Your task to perform on an android device: What is the news today? Image 0: 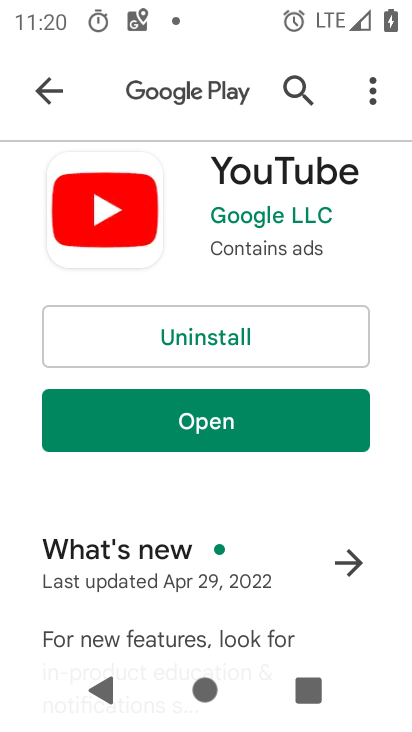
Step 0: press home button
Your task to perform on an android device: What is the news today? Image 1: 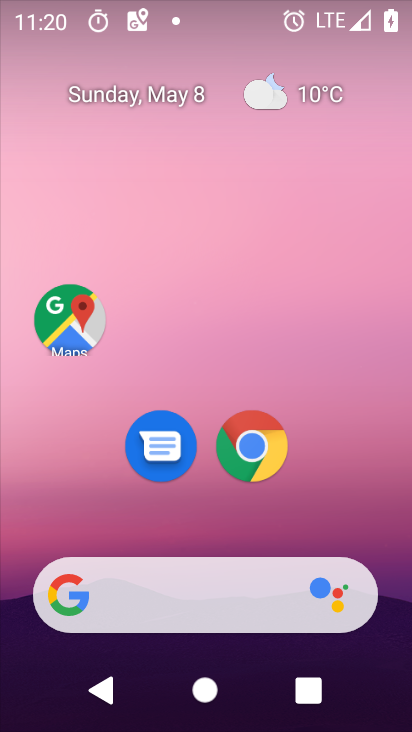
Step 1: drag from (10, 199) to (407, 305)
Your task to perform on an android device: What is the news today? Image 2: 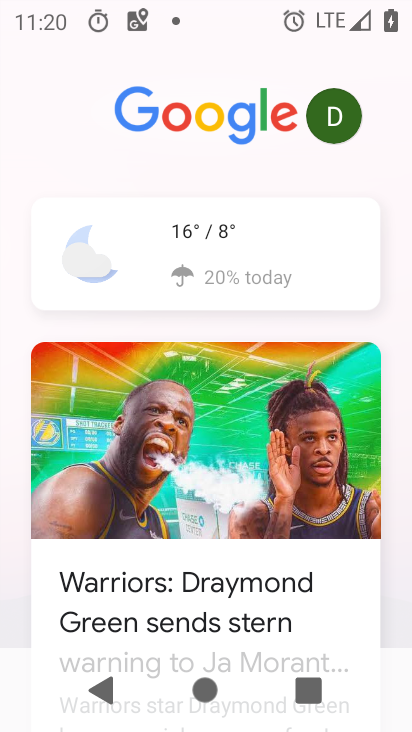
Step 2: drag from (240, 487) to (259, 261)
Your task to perform on an android device: What is the news today? Image 3: 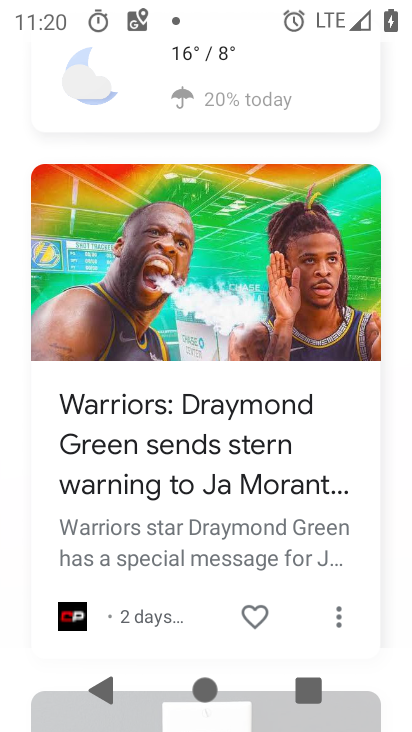
Step 3: drag from (259, 371) to (225, 721)
Your task to perform on an android device: What is the news today? Image 4: 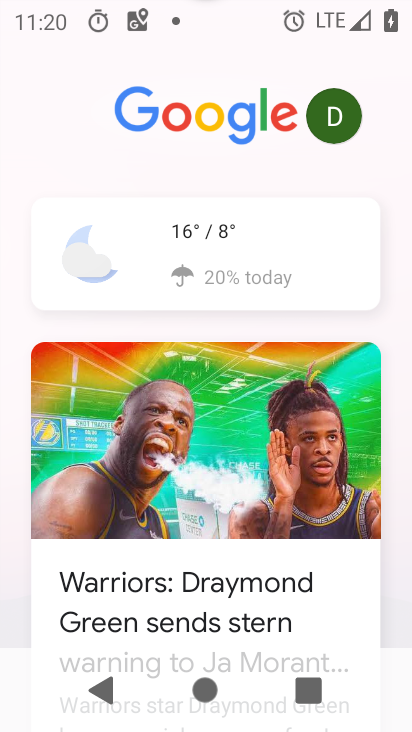
Step 4: drag from (242, 341) to (202, 702)
Your task to perform on an android device: What is the news today? Image 5: 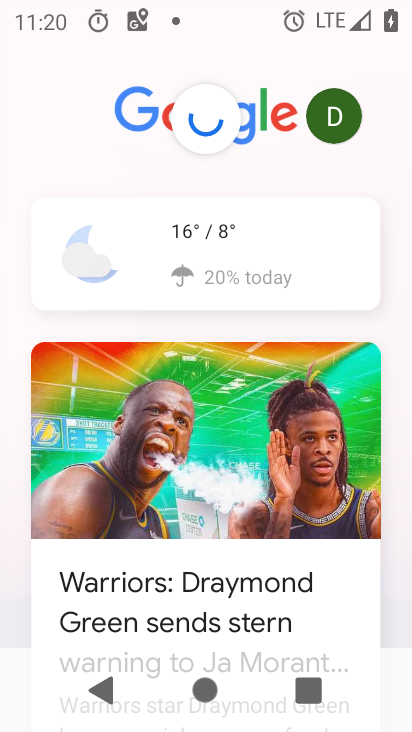
Step 5: click (207, 198)
Your task to perform on an android device: What is the news today? Image 6: 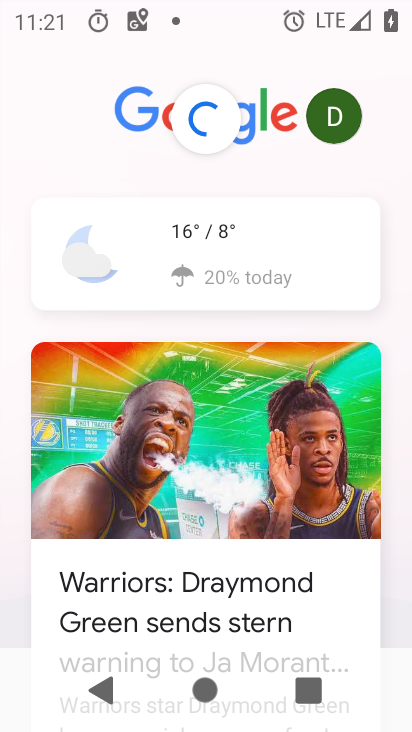
Step 6: task complete